Your task to perform on an android device: Go to accessibility settings Image 0: 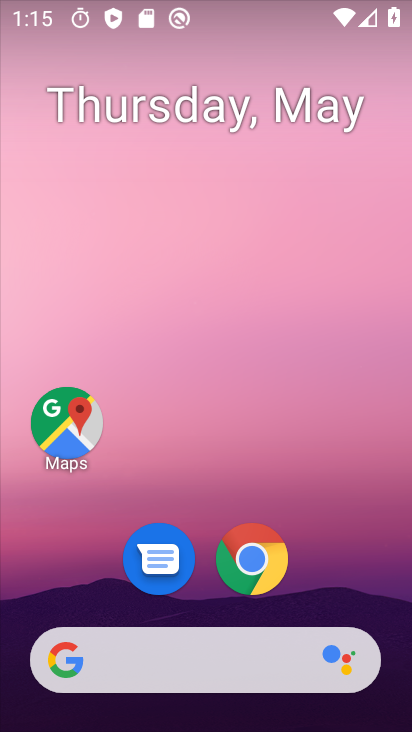
Step 0: drag from (97, 608) to (192, 112)
Your task to perform on an android device: Go to accessibility settings Image 1: 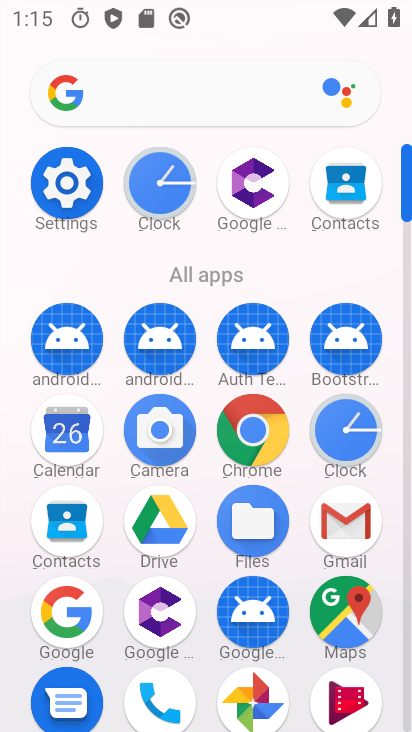
Step 1: drag from (123, 620) to (225, 364)
Your task to perform on an android device: Go to accessibility settings Image 2: 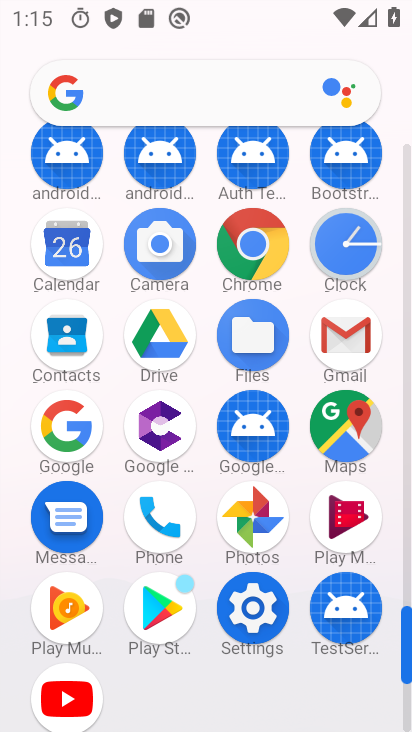
Step 2: click (253, 612)
Your task to perform on an android device: Go to accessibility settings Image 3: 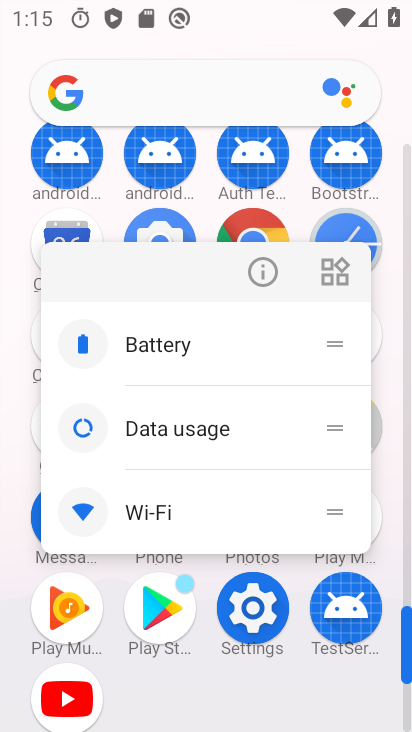
Step 3: click (254, 614)
Your task to perform on an android device: Go to accessibility settings Image 4: 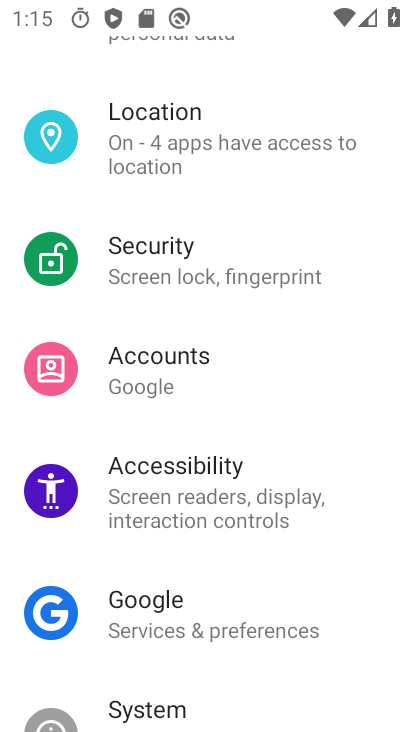
Step 4: drag from (132, 666) to (280, 138)
Your task to perform on an android device: Go to accessibility settings Image 5: 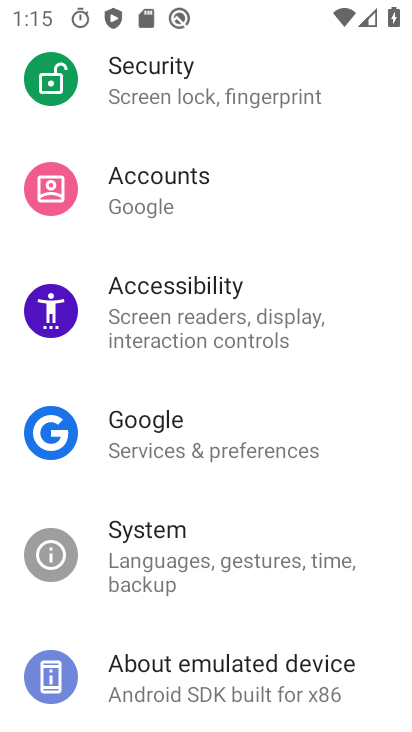
Step 5: click (215, 334)
Your task to perform on an android device: Go to accessibility settings Image 6: 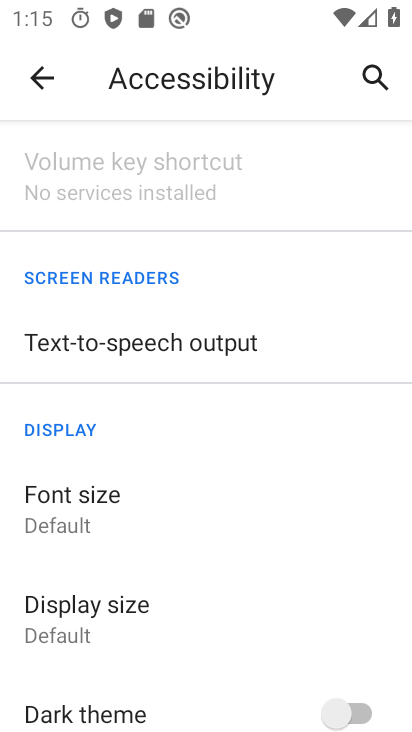
Step 6: task complete